Your task to perform on an android device: View the shopping cart on costco. Search for "razer blackwidow" on costco, select the first entry, add it to the cart, then select checkout. Image 0: 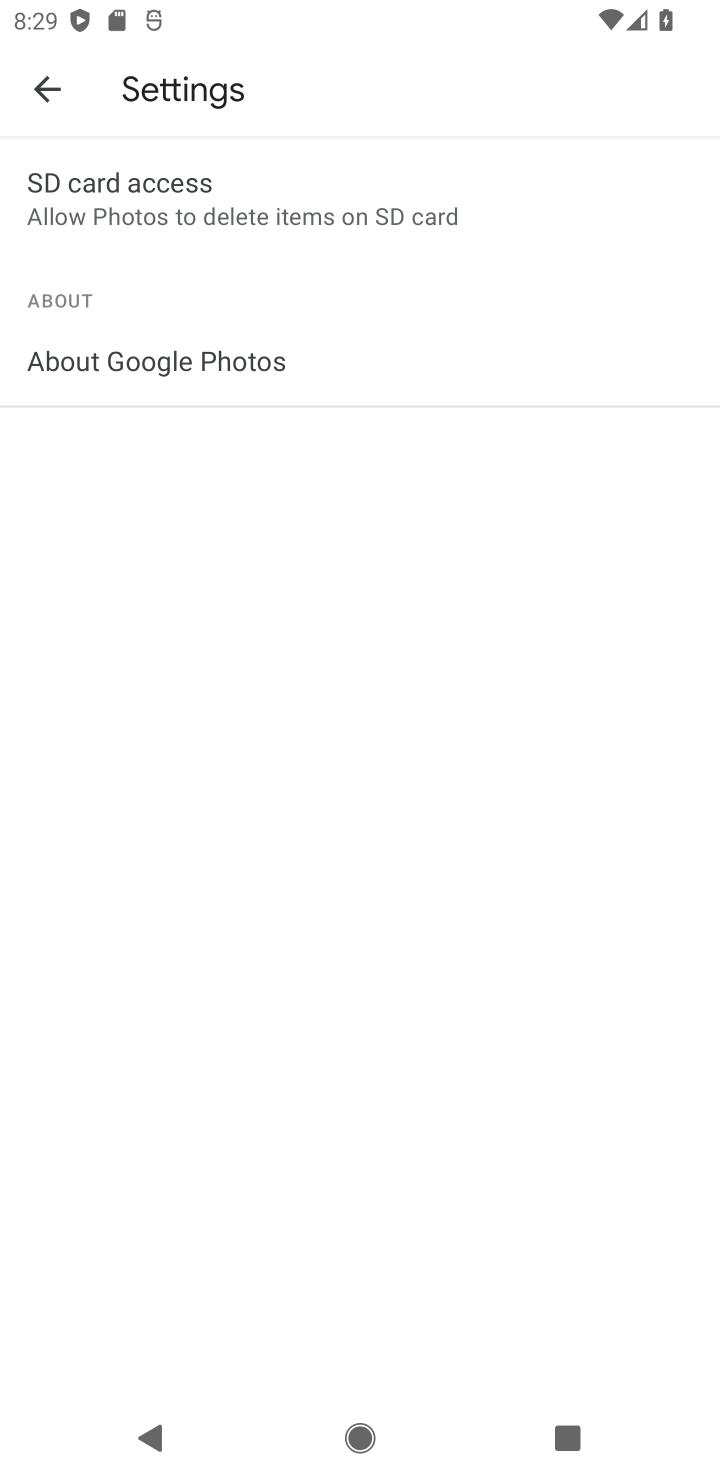
Step 0: press home button
Your task to perform on an android device: View the shopping cart on costco. Search for "razer blackwidow" on costco, select the first entry, add it to the cart, then select checkout. Image 1: 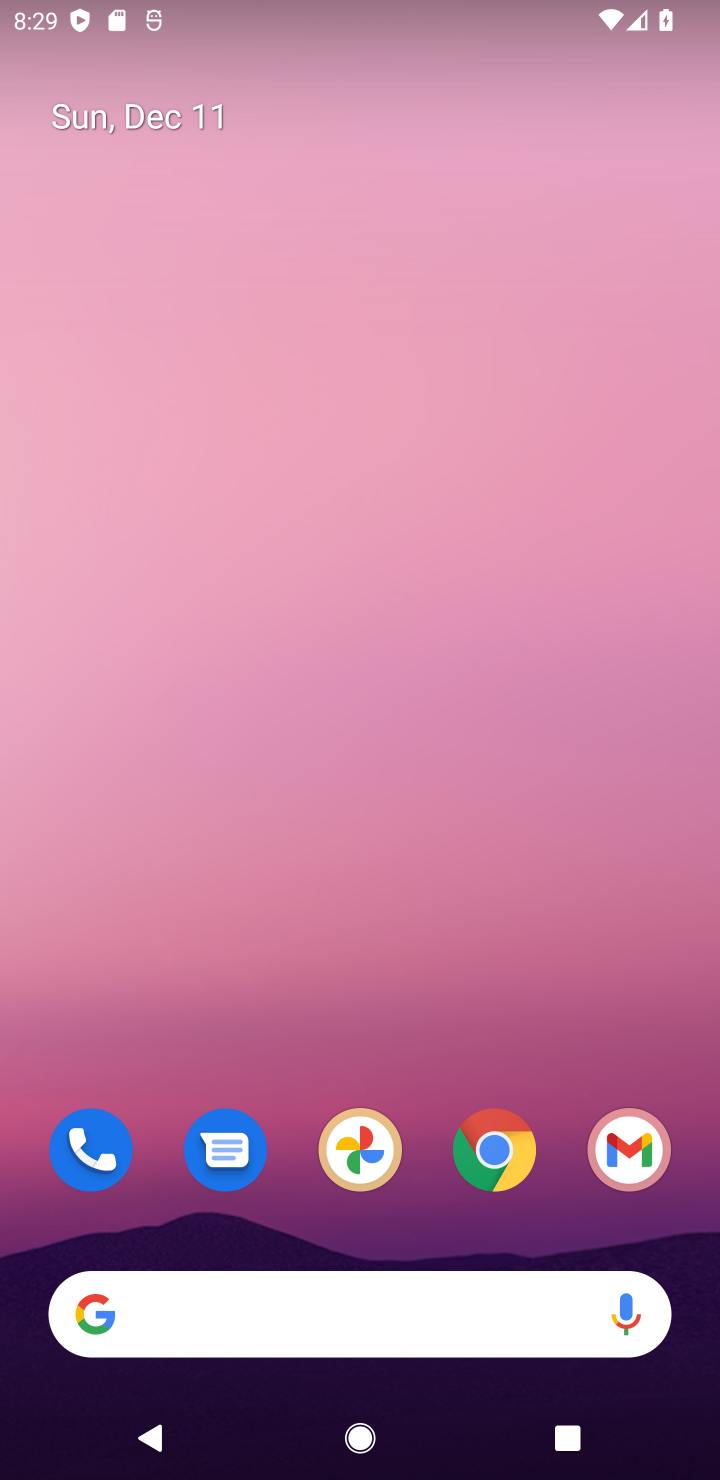
Step 1: click (499, 1153)
Your task to perform on an android device: View the shopping cart on costco. Search for "razer blackwidow" on costco, select the first entry, add it to the cart, then select checkout. Image 2: 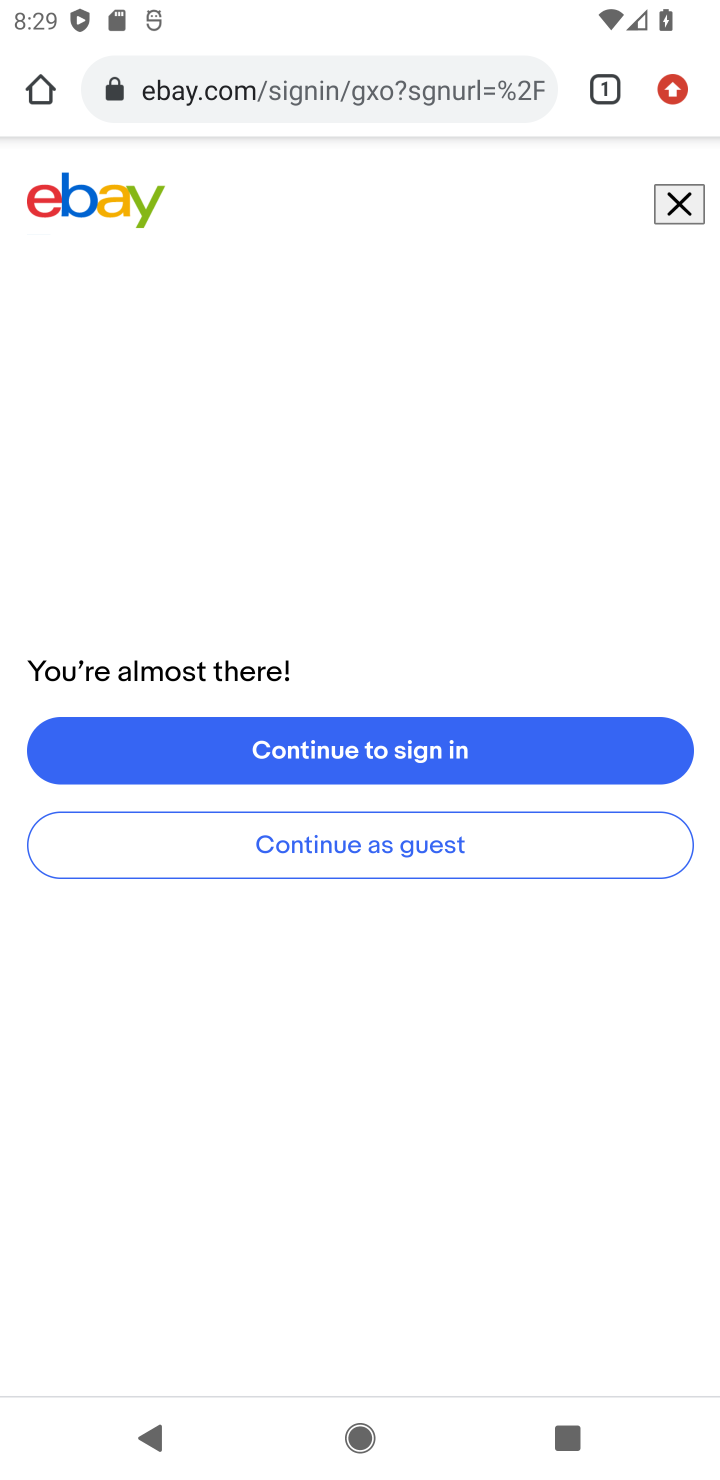
Step 2: click (372, 102)
Your task to perform on an android device: View the shopping cart on costco. Search for "razer blackwidow" on costco, select the first entry, add it to the cart, then select checkout. Image 3: 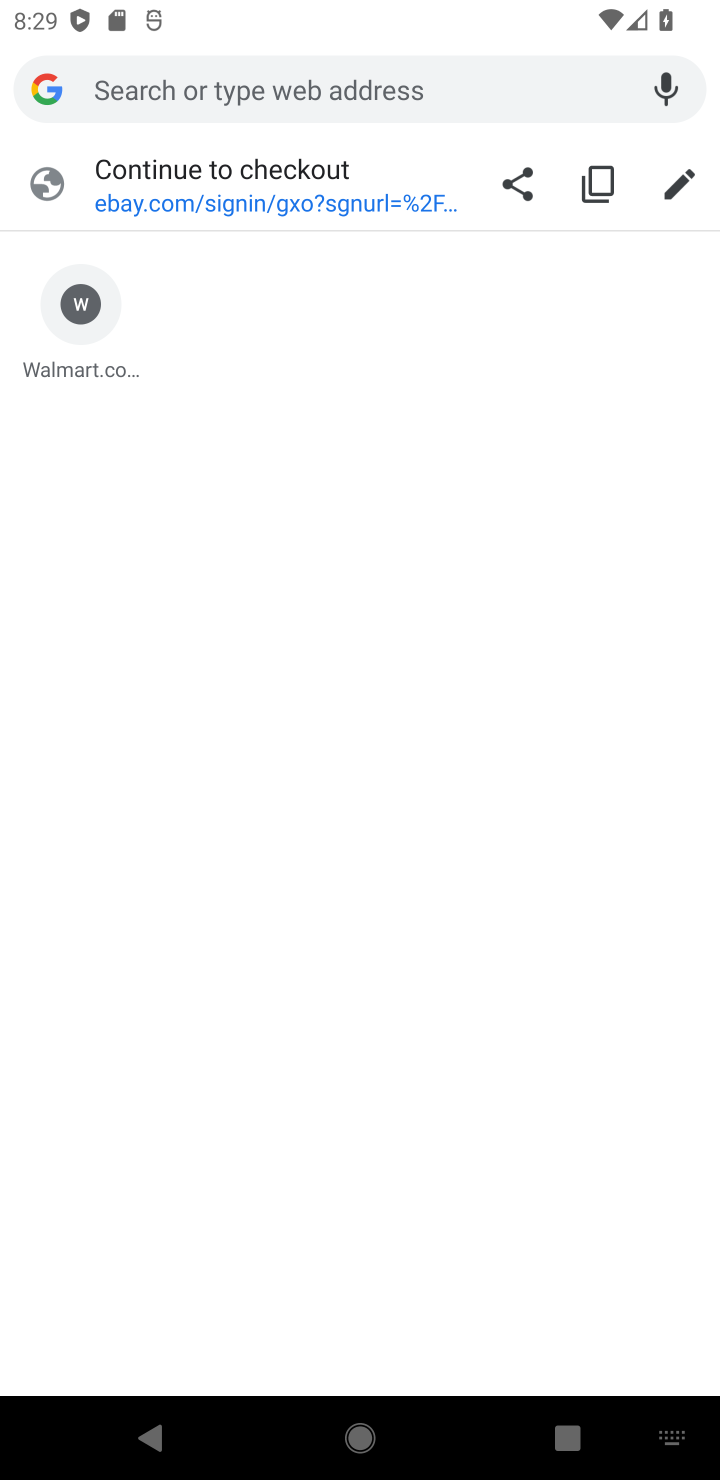
Step 3: type "costco"
Your task to perform on an android device: View the shopping cart on costco. Search for "razer blackwidow" on costco, select the first entry, add it to the cart, then select checkout. Image 4: 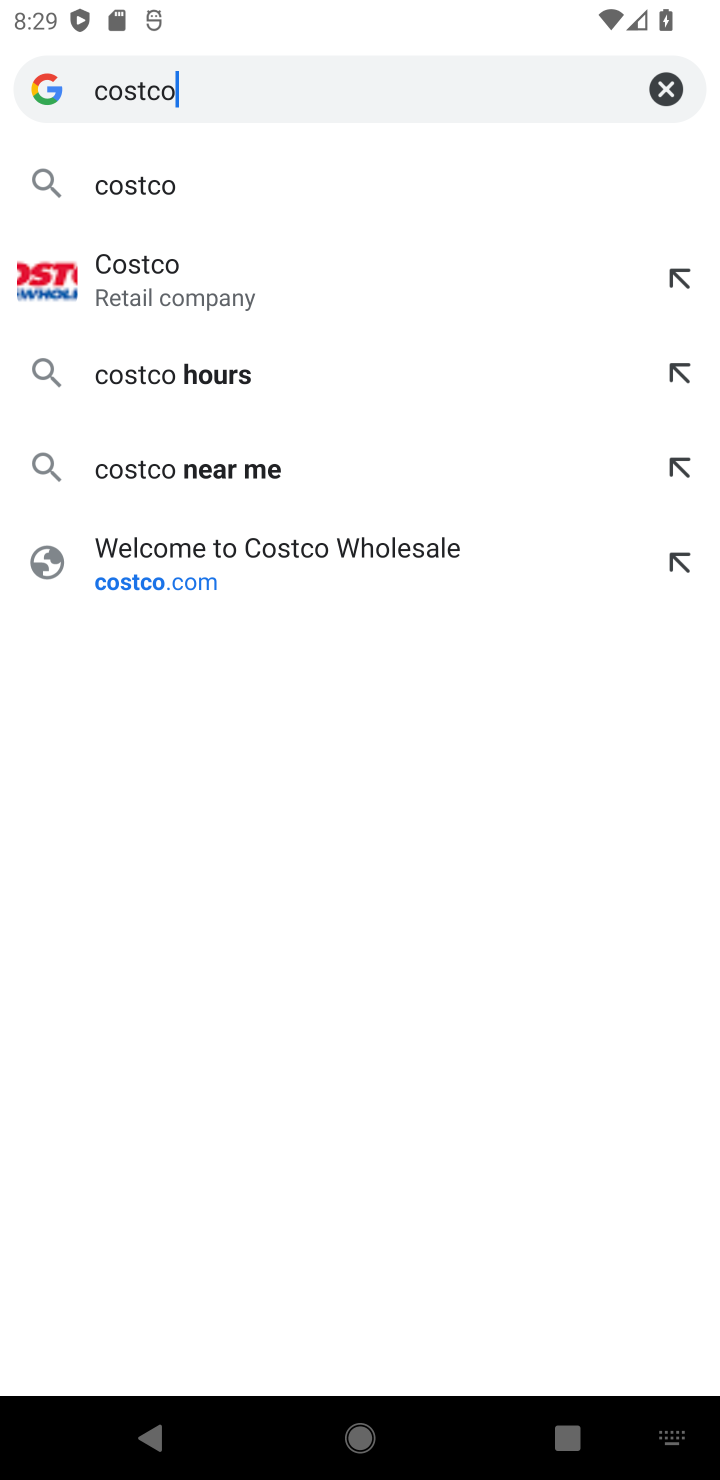
Step 4: click (118, 177)
Your task to perform on an android device: View the shopping cart on costco. Search for "razer blackwidow" on costco, select the first entry, add it to the cart, then select checkout. Image 5: 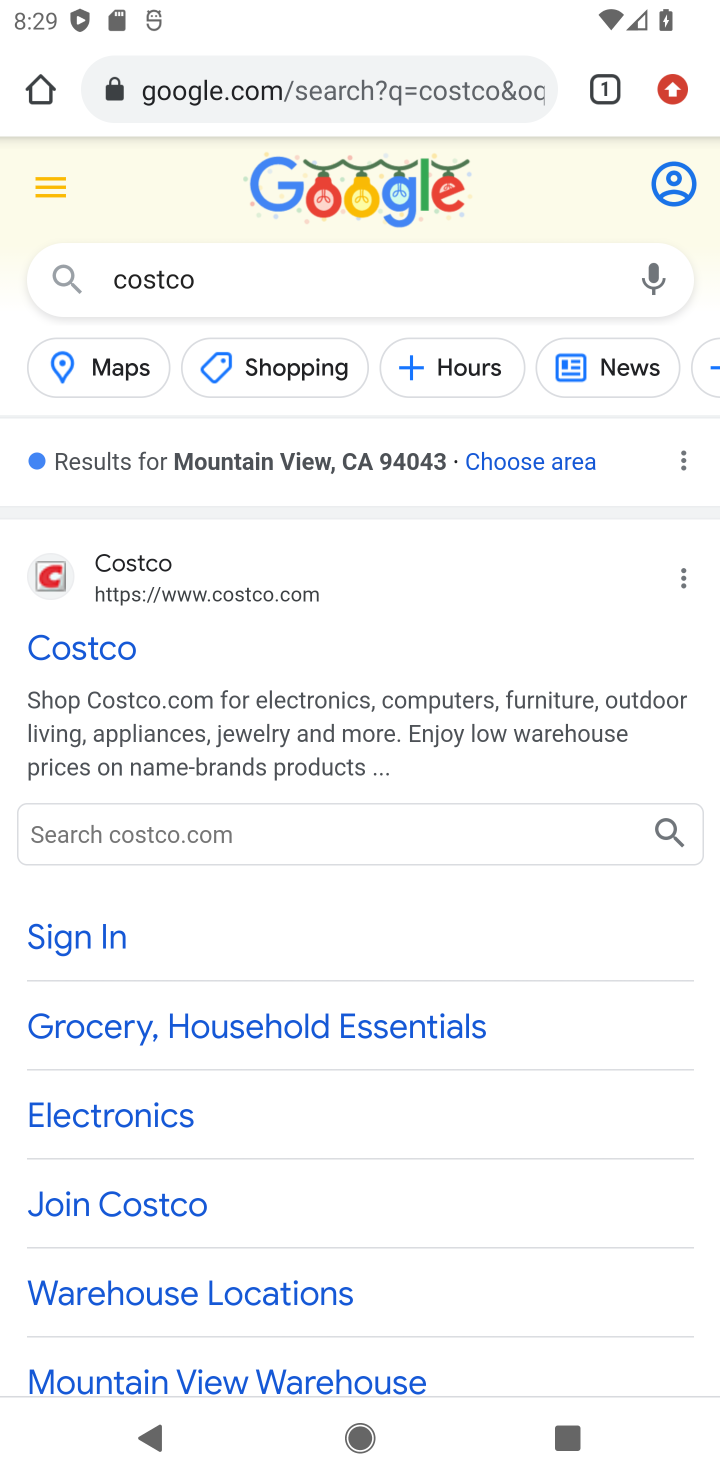
Step 5: click (92, 644)
Your task to perform on an android device: View the shopping cart on costco. Search for "razer blackwidow" on costco, select the first entry, add it to the cart, then select checkout. Image 6: 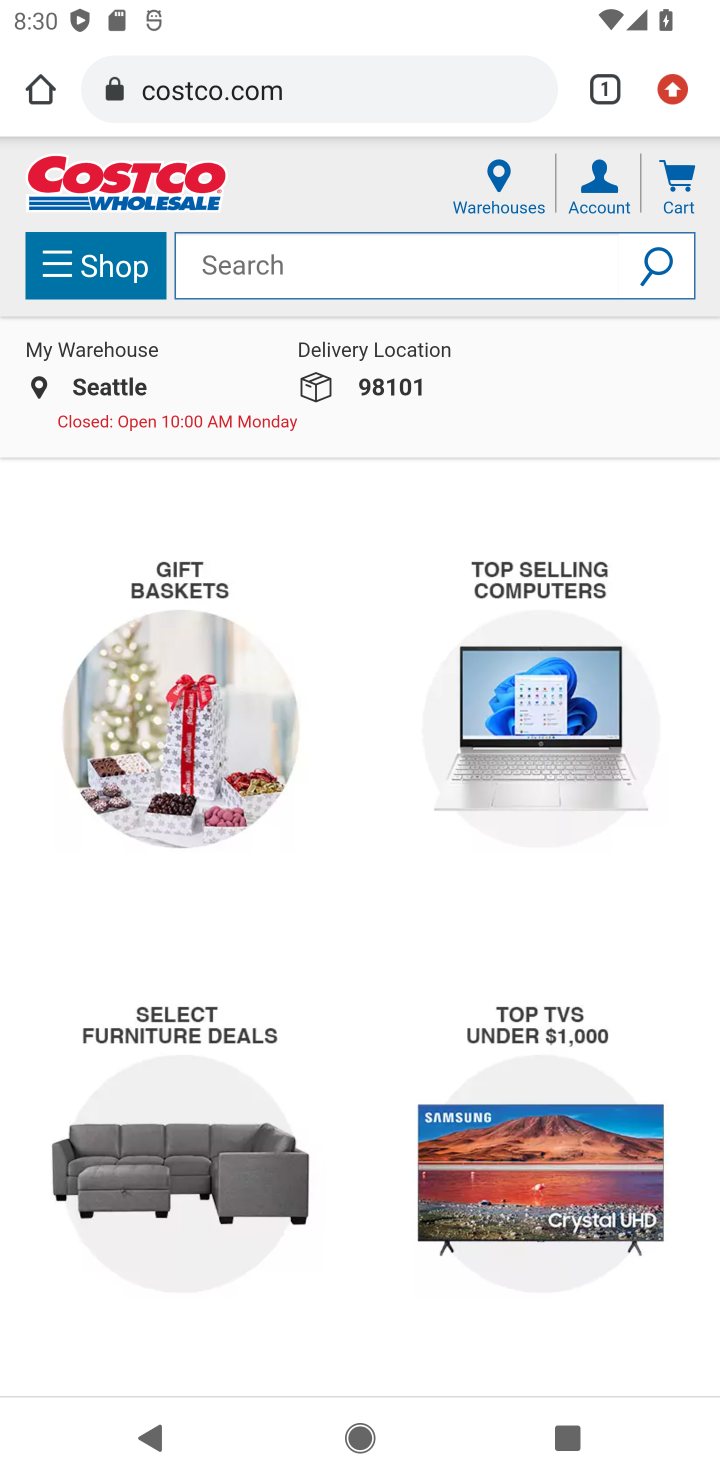
Step 6: click (687, 178)
Your task to perform on an android device: View the shopping cart on costco. Search for "razer blackwidow" on costco, select the first entry, add it to the cart, then select checkout. Image 7: 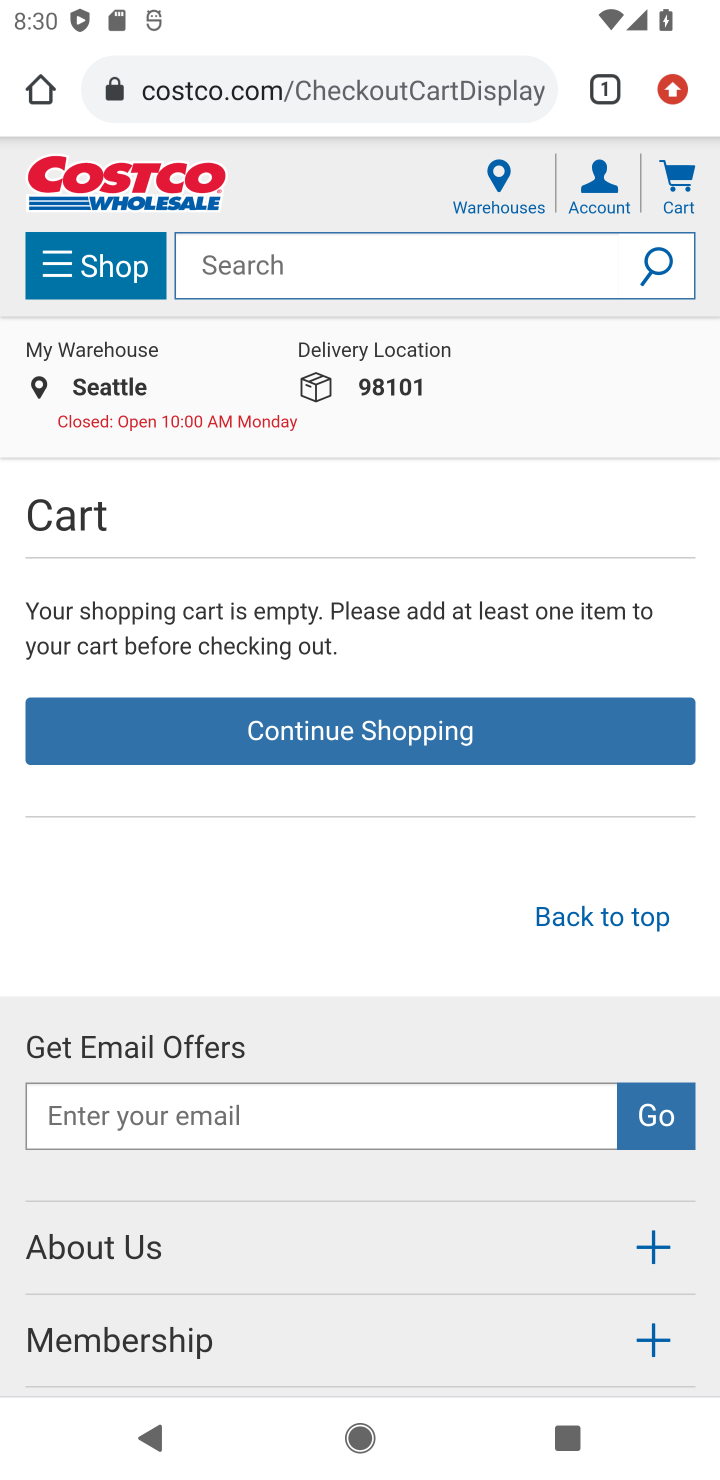
Step 7: click (394, 265)
Your task to perform on an android device: View the shopping cart on costco. Search for "razer blackwidow" on costco, select the first entry, add it to the cart, then select checkout. Image 8: 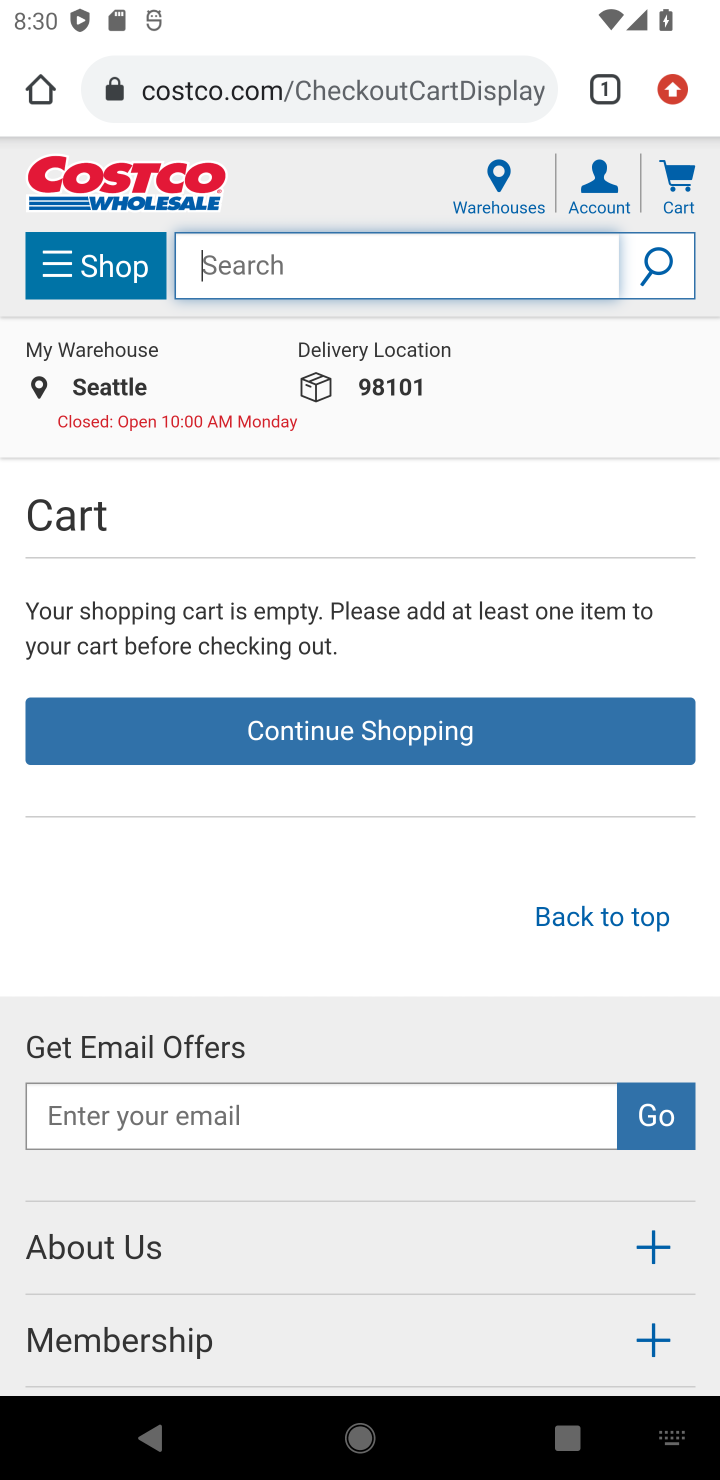
Step 8: type "razer blackwindow"
Your task to perform on an android device: View the shopping cart on costco. Search for "razer blackwidow" on costco, select the first entry, add it to the cart, then select checkout. Image 9: 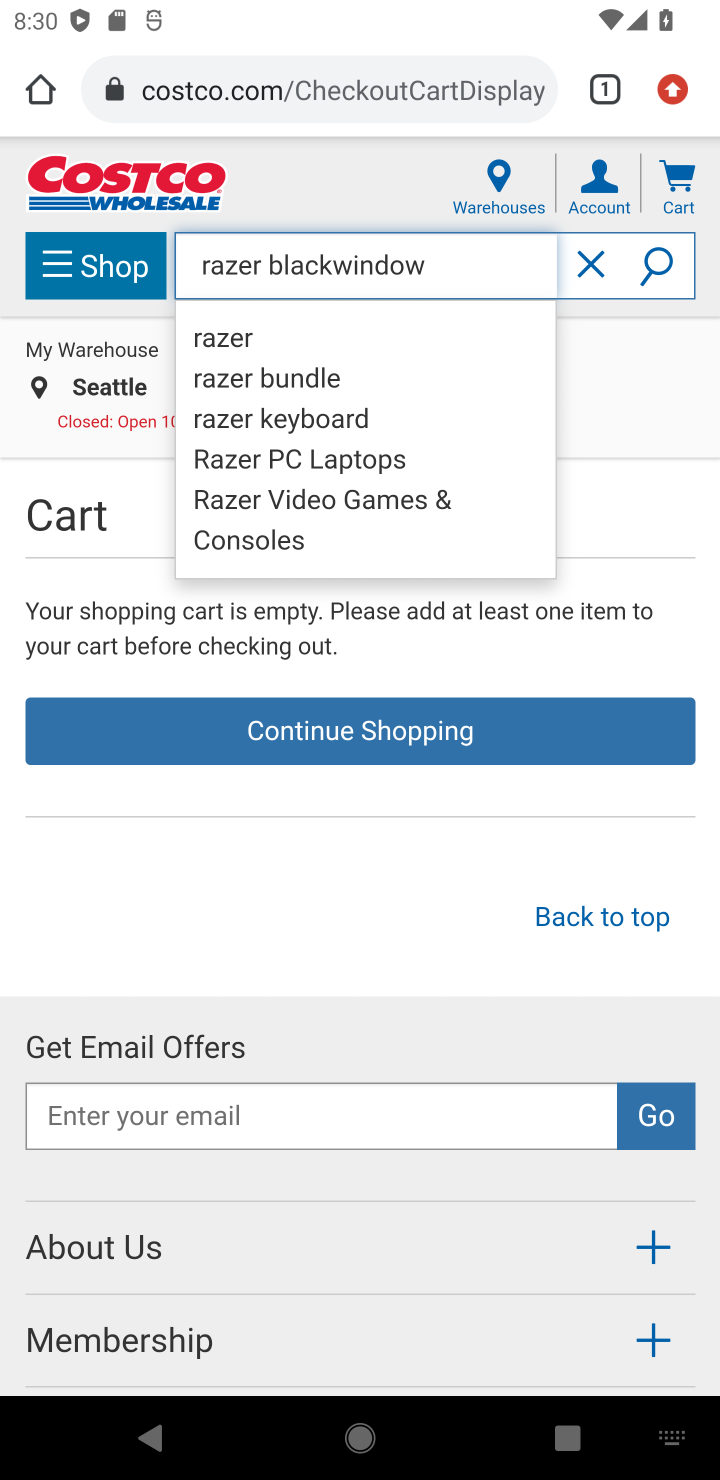
Step 9: click (660, 269)
Your task to perform on an android device: View the shopping cart on costco. Search for "razer blackwidow" on costco, select the first entry, add it to the cart, then select checkout. Image 10: 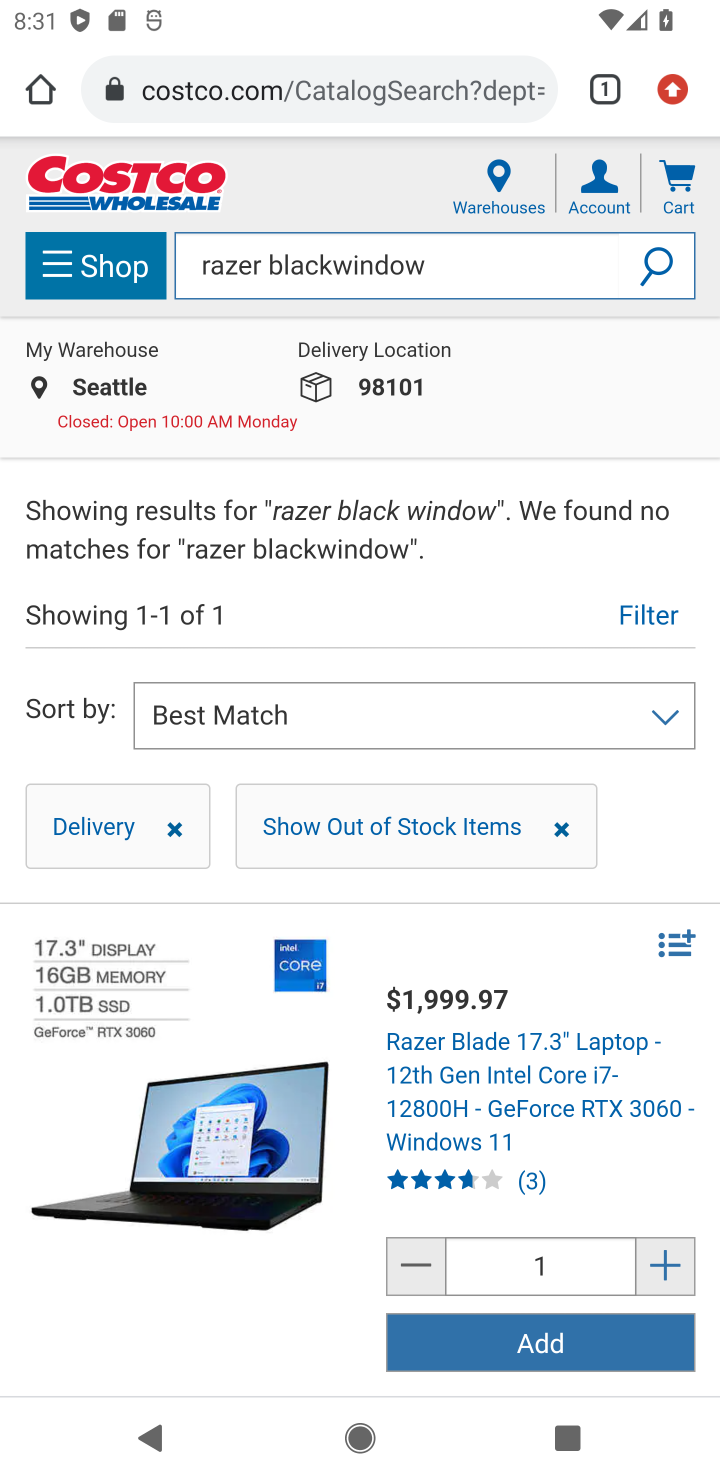
Step 10: click (512, 1075)
Your task to perform on an android device: View the shopping cart on costco. Search for "razer blackwidow" on costco, select the first entry, add it to the cart, then select checkout. Image 11: 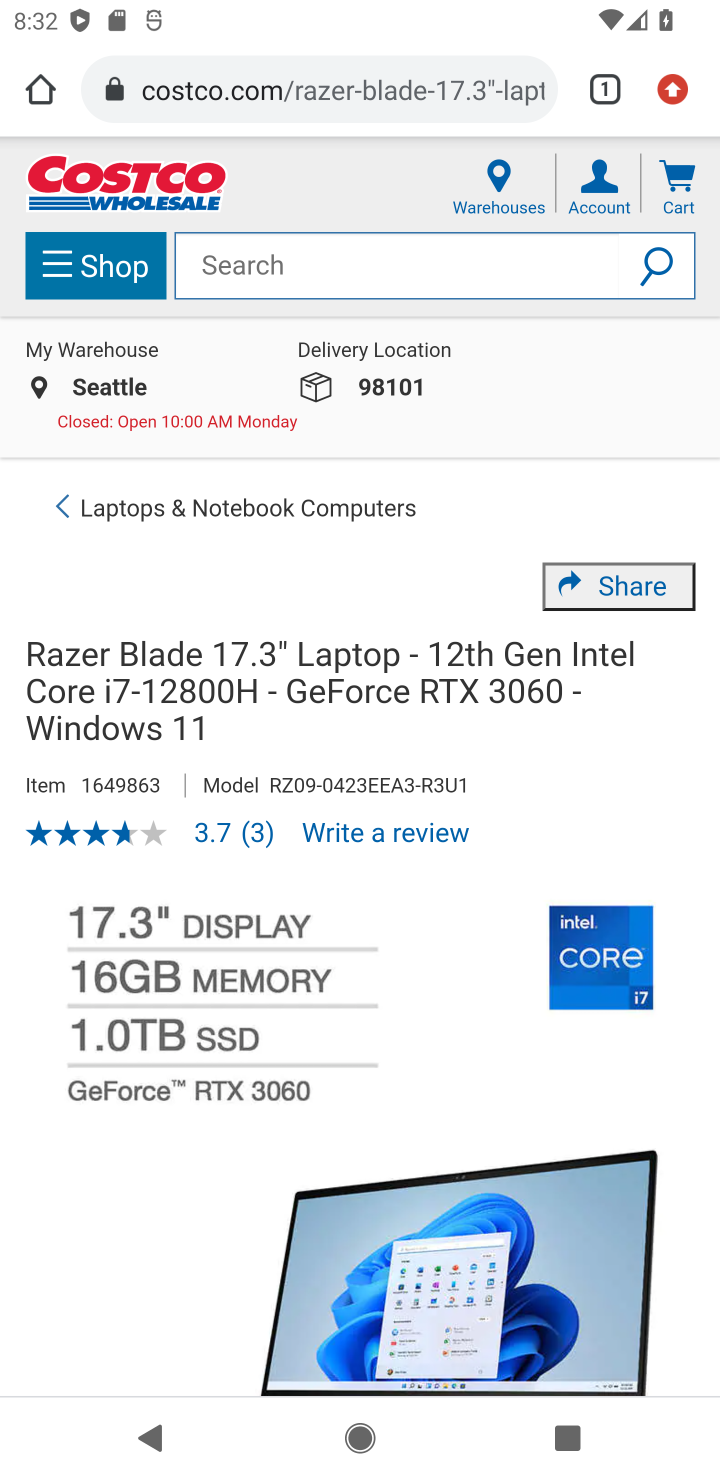
Step 11: drag from (504, 1091) to (579, 577)
Your task to perform on an android device: View the shopping cart on costco. Search for "razer blackwidow" on costco, select the first entry, add it to the cart, then select checkout. Image 12: 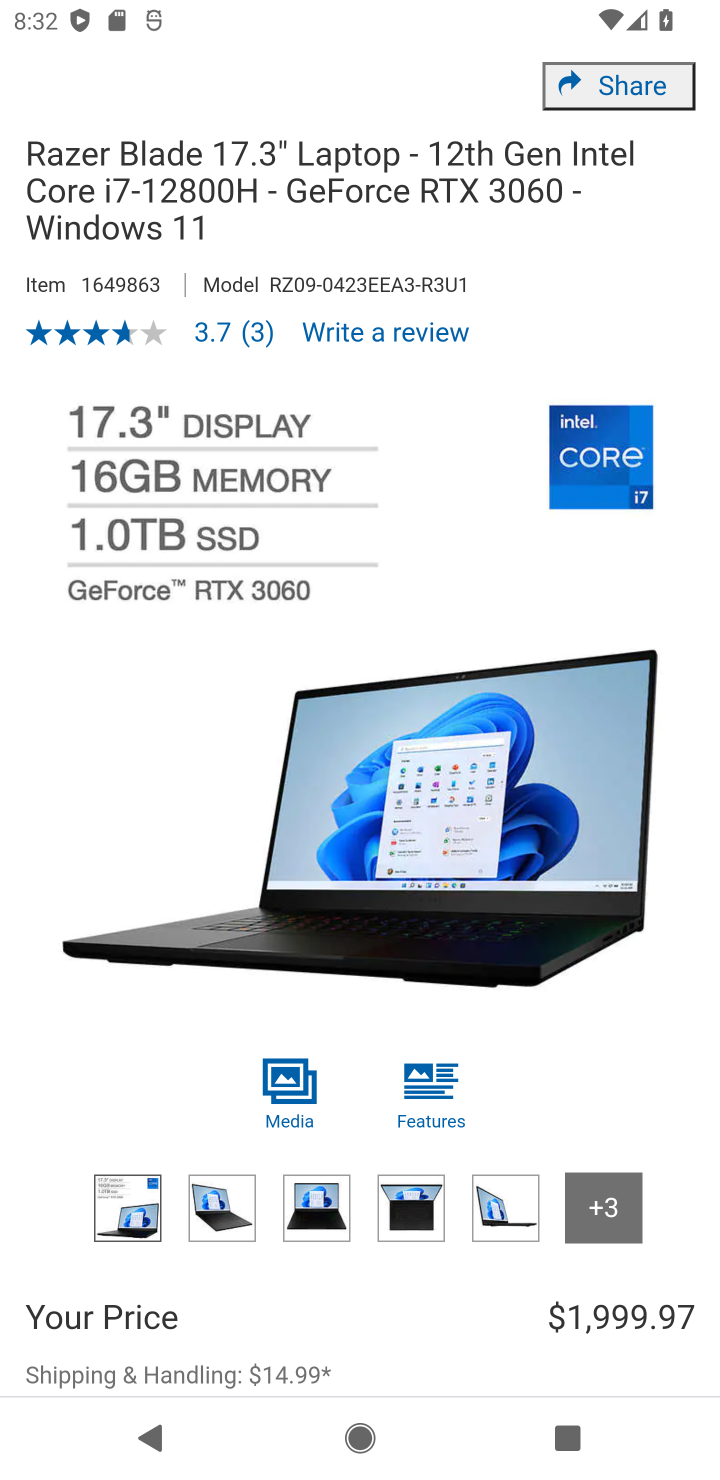
Step 12: drag from (462, 897) to (478, 445)
Your task to perform on an android device: View the shopping cart on costco. Search for "razer blackwidow" on costco, select the first entry, add it to the cart, then select checkout. Image 13: 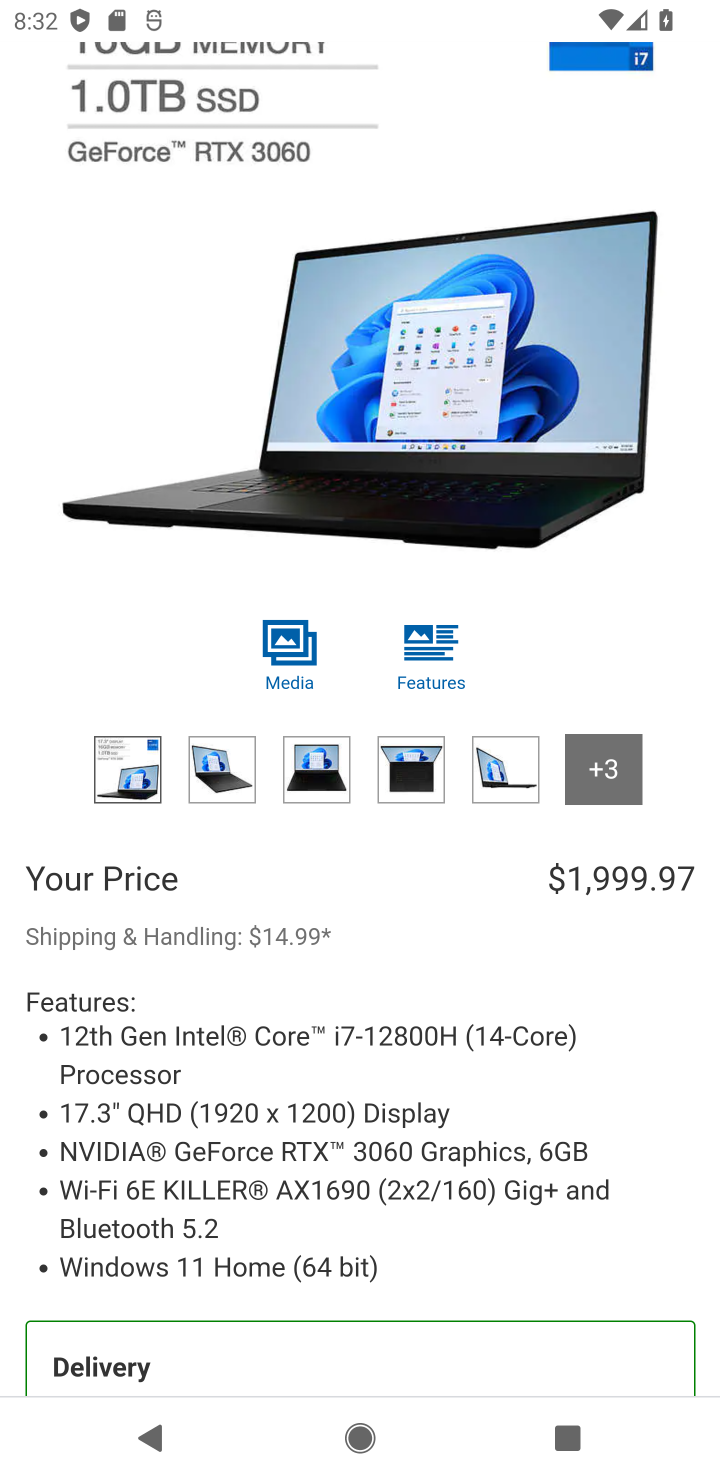
Step 13: drag from (413, 697) to (440, 525)
Your task to perform on an android device: View the shopping cart on costco. Search for "razer blackwidow" on costco, select the first entry, add it to the cart, then select checkout. Image 14: 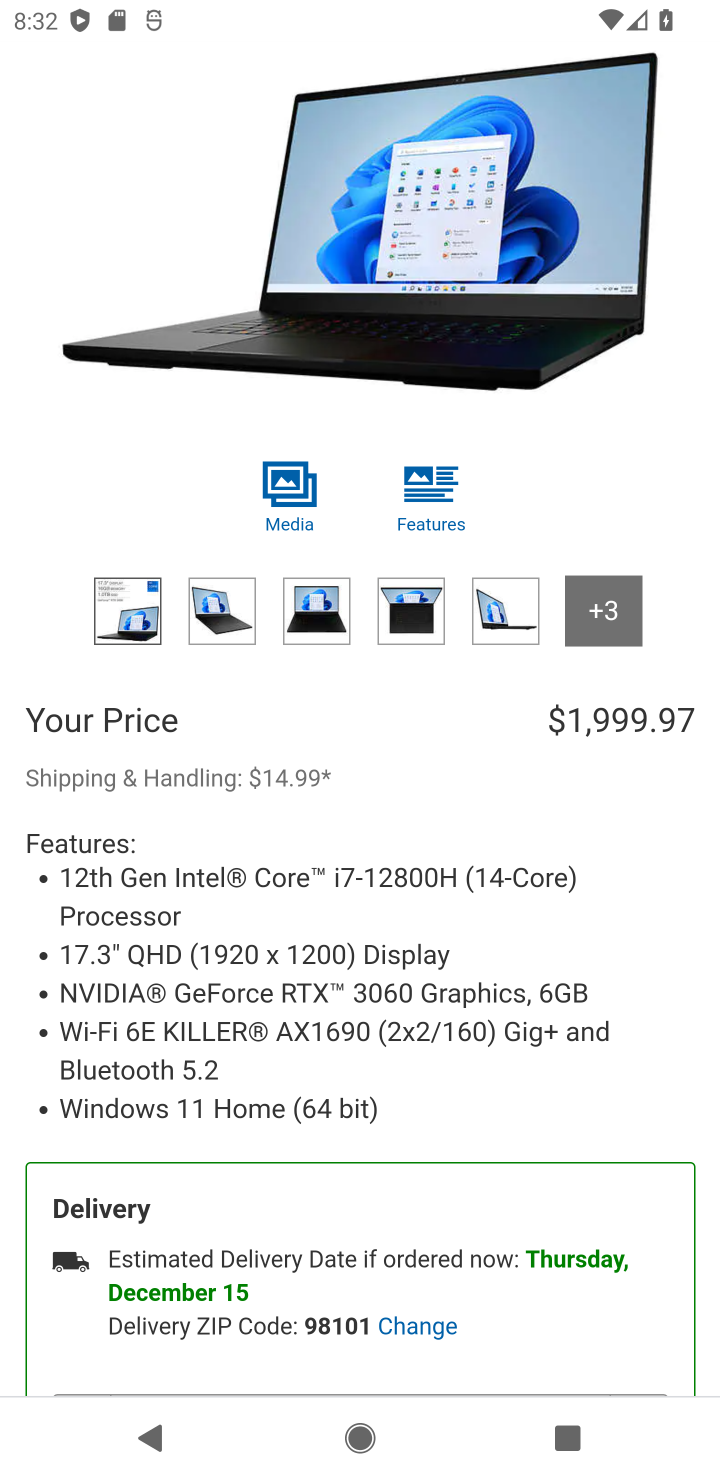
Step 14: drag from (404, 1091) to (451, 463)
Your task to perform on an android device: View the shopping cart on costco. Search for "razer blackwidow" on costco, select the first entry, add it to the cart, then select checkout. Image 15: 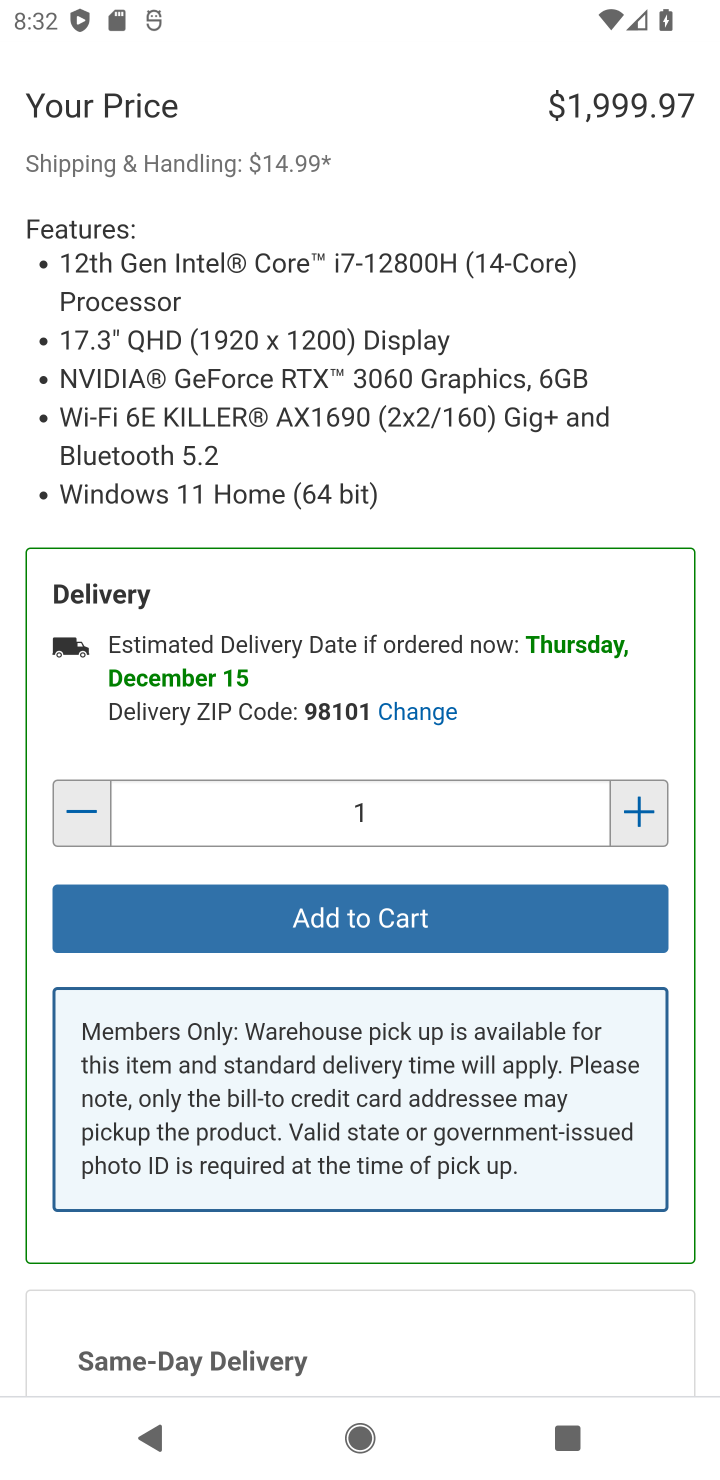
Step 15: click (386, 925)
Your task to perform on an android device: View the shopping cart on costco. Search for "razer blackwidow" on costco, select the first entry, add it to the cart, then select checkout. Image 16: 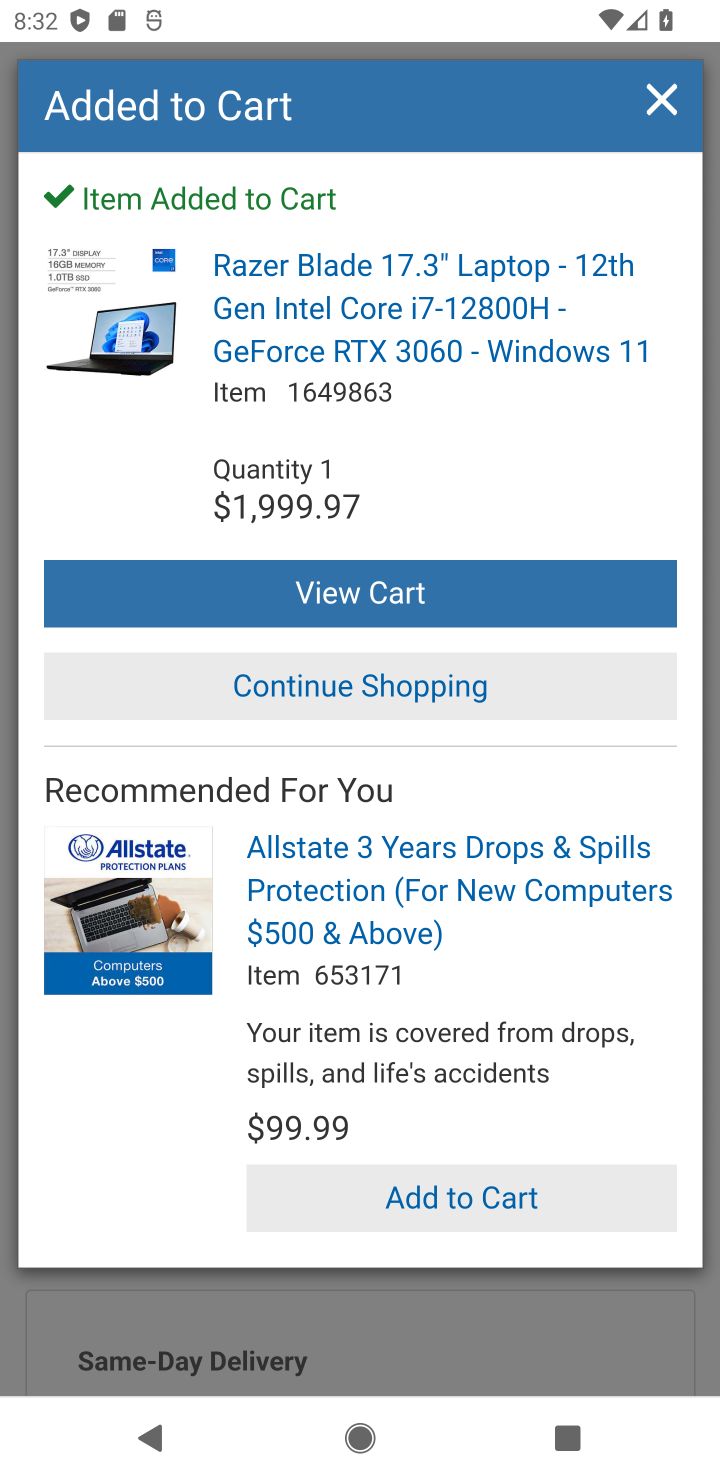
Step 16: click (426, 593)
Your task to perform on an android device: View the shopping cart on costco. Search for "razer blackwidow" on costco, select the first entry, add it to the cart, then select checkout. Image 17: 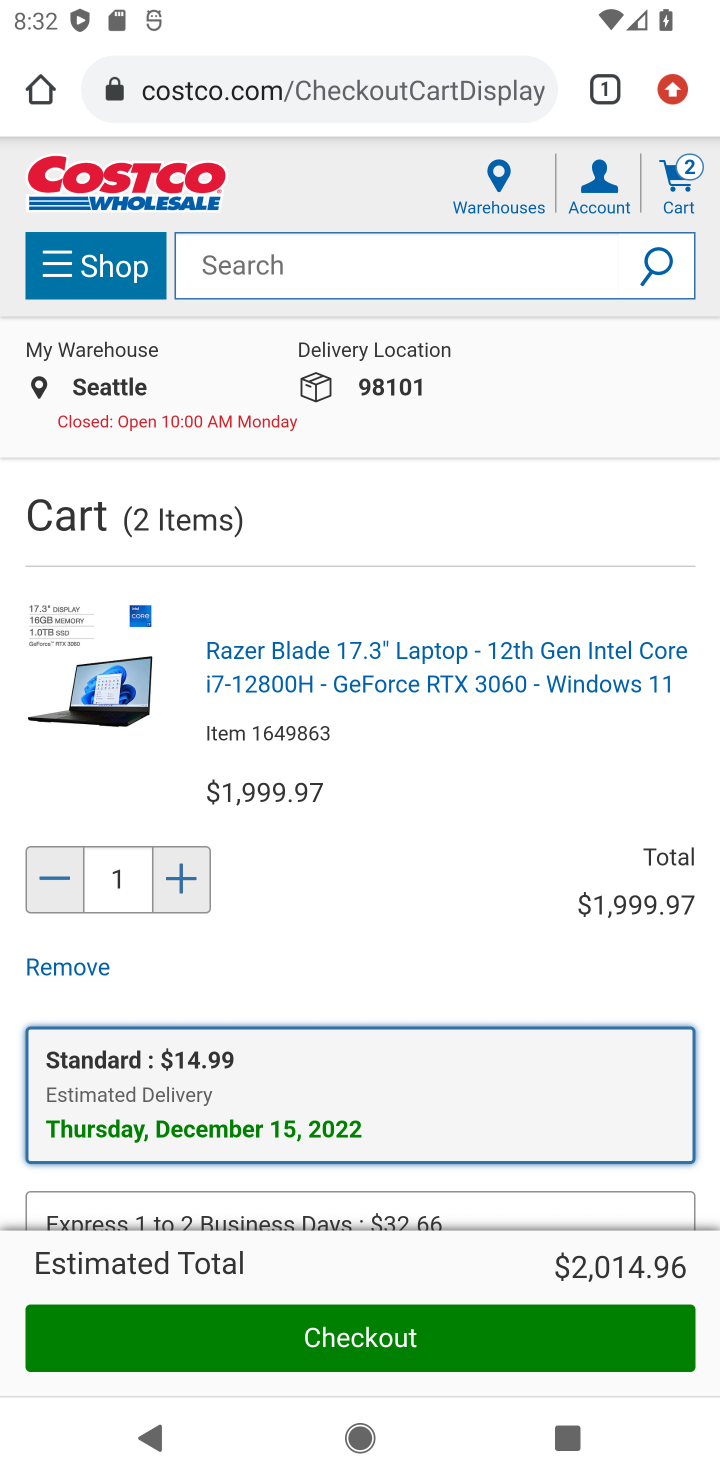
Step 17: click (374, 1336)
Your task to perform on an android device: View the shopping cart on costco. Search for "razer blackwidow" on costco, select the first entry, add it to the cart, then select checkout. Image 18: 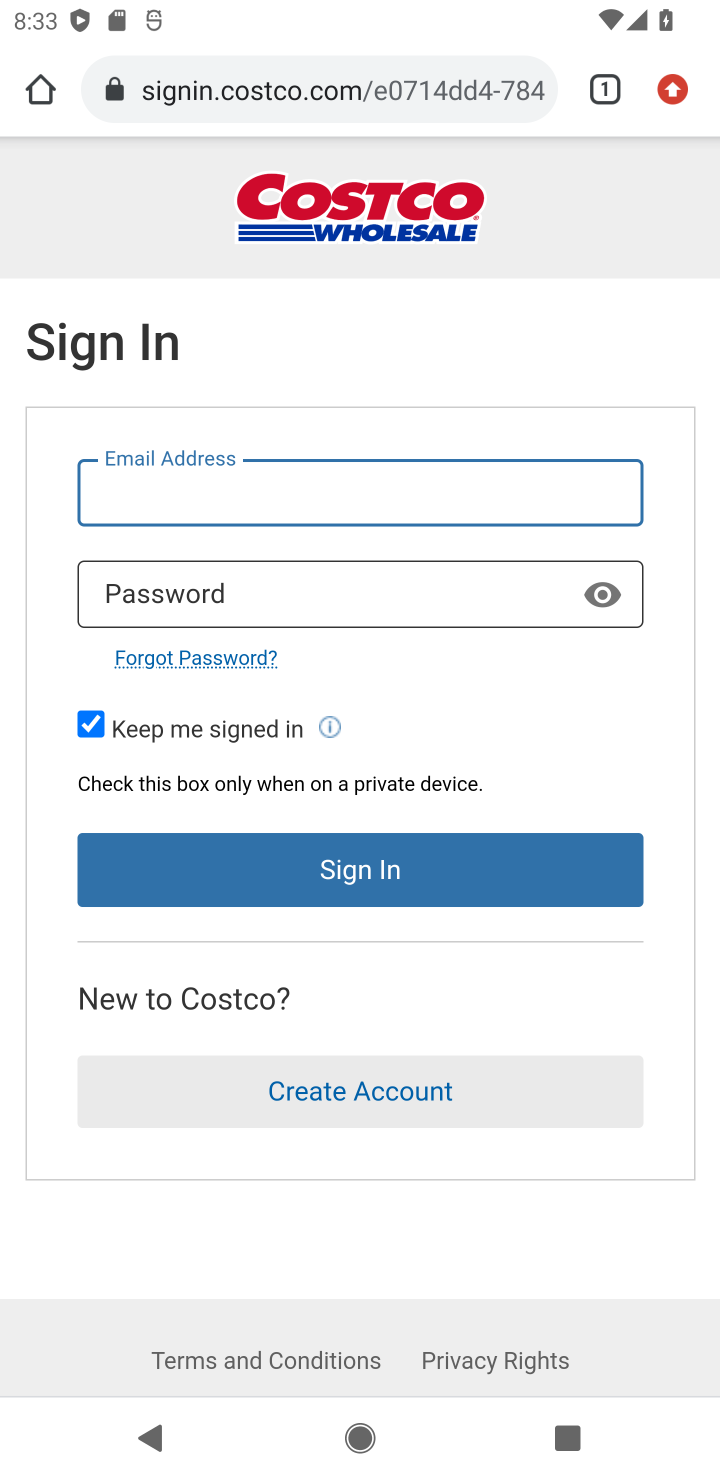
Step 18: task complete